Your task to perform on an android device: choose inbox layout in the gmail app Image 0: 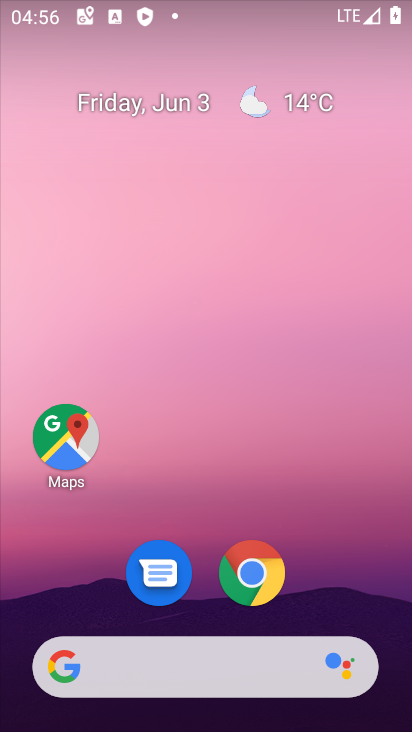
Step 0: drag from (160, 692) to (80, 110)
Your task to perform on an android device: choose inbox layout in the gmail app Image 1: 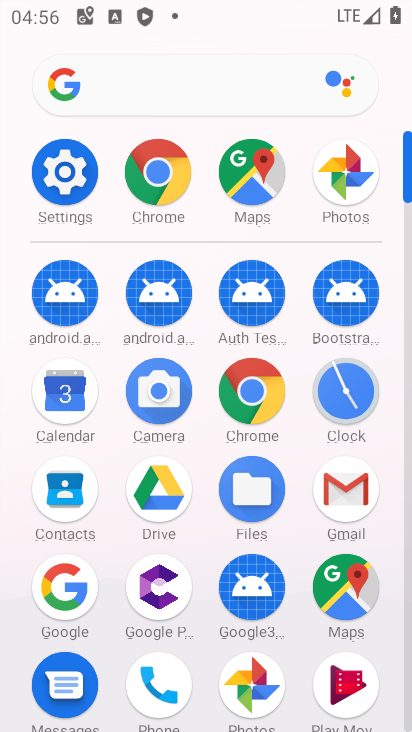
Step 1: click (335, 466)
Your task to perform on an android device: choose inbox layout in the gmail app Image 2: 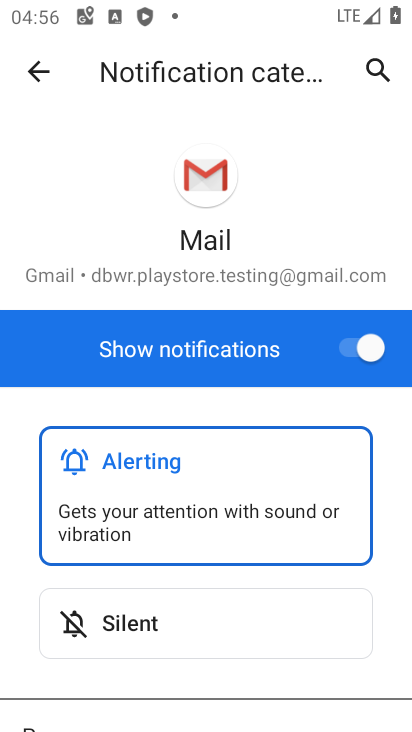
Step 2: press back button
Your task to perform on an android device: choose inbox layout in the gmail app Image 3: 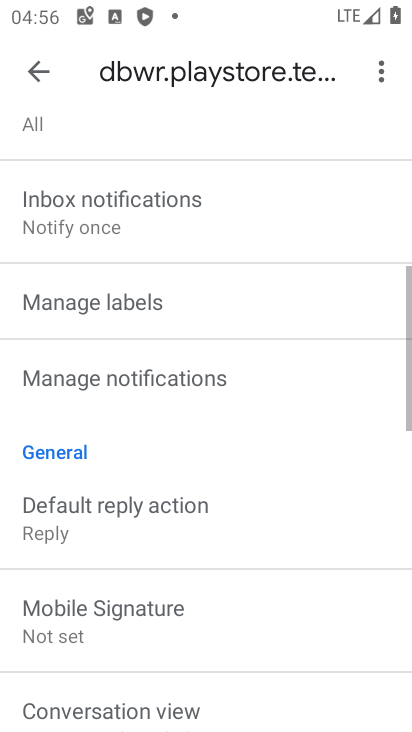
Step 3: drag from (232, 700) to (276, 172)
Your task to perform on an android device: choose inbox layout in the gmail app Image 4: 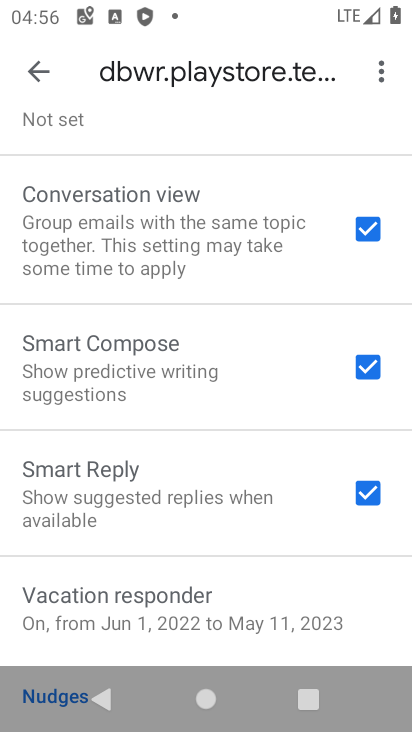
Step 4: drag from (252, 228) to (150, 703)
Your task to perform on an android device: choose inbox layout in the gmail app Image 5: 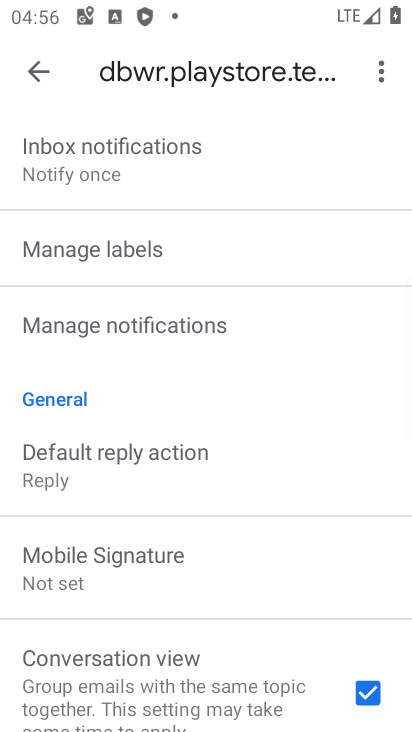
Step 5: drag from (198, 279) to (118, 702)
Your task to perform on an android device: choose inbox layout in the gmail app Image 6: 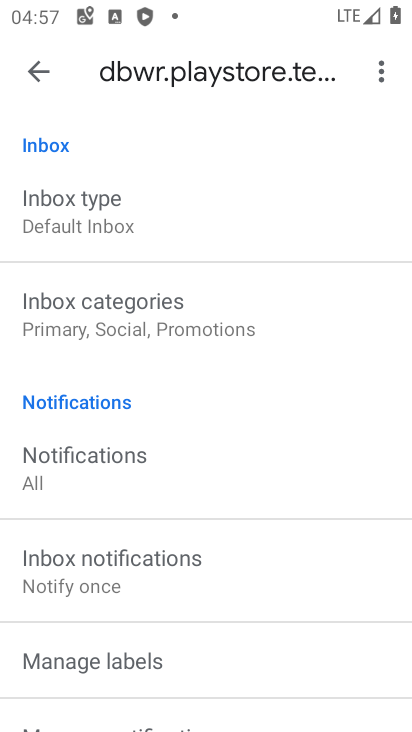
Step 6: click (197, 246)
Your task to perform on an android device: choose inbox layout in the gmail app Image 7: 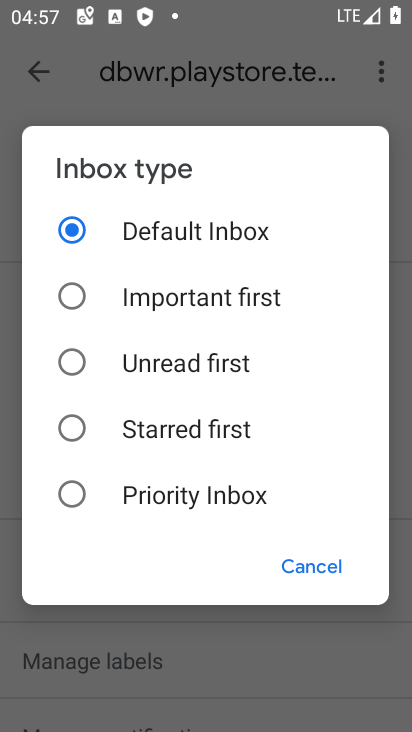
Step 7: click (79, 486)
Your task to perform on an android device: choose inbox layout in the gmail app Image 8: 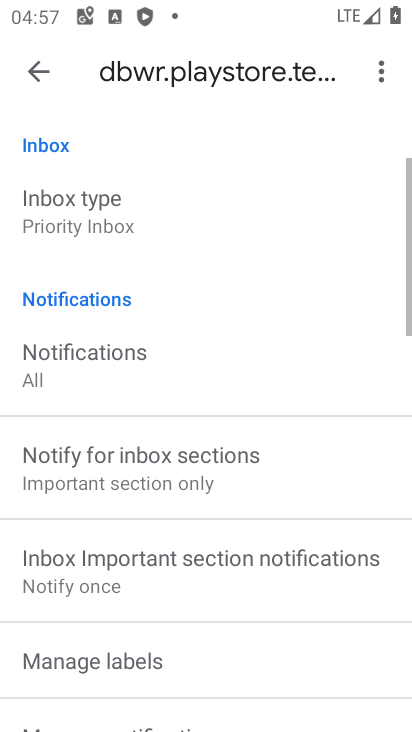
Step 8: task complete